Your task to perform on an android device: check android version Image 0: 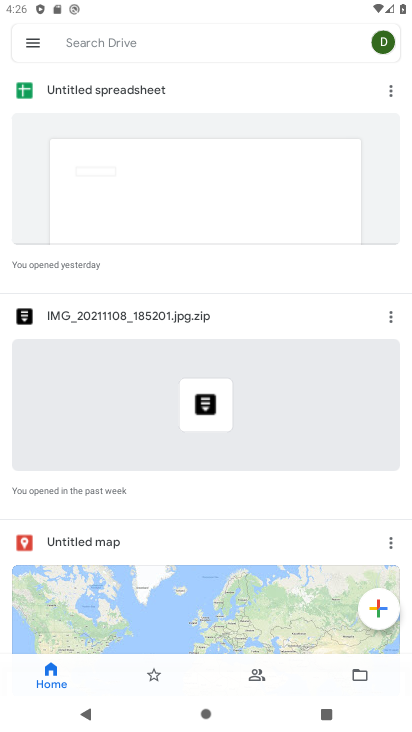
Step 0: press home button
Your task to perform on an android device: check android version Image 1: 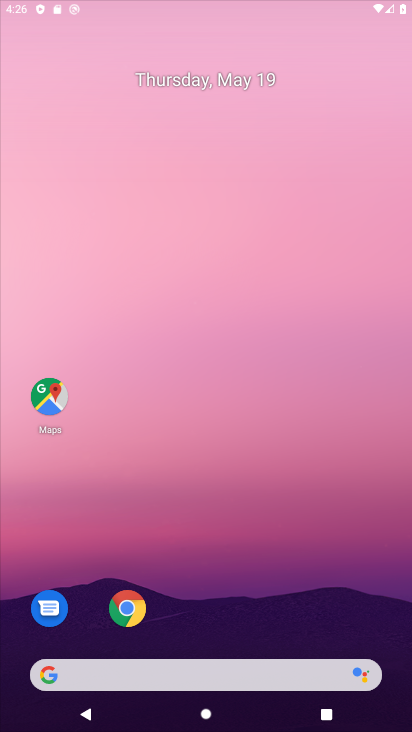
Step 1: drag from (265, 607) to (272, 86)
Your task to perform on an android device: check android version Image 2: 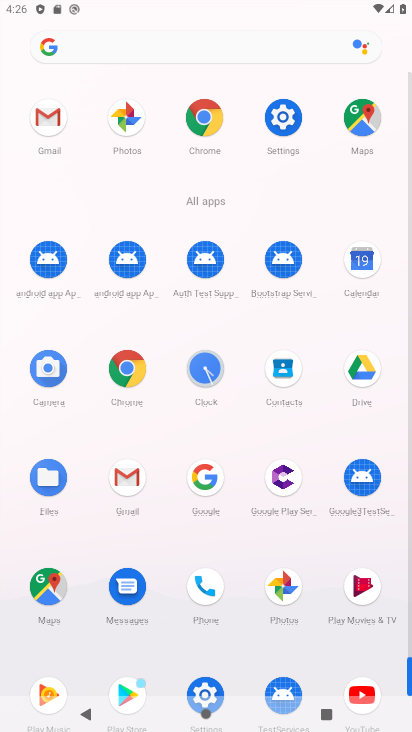
Step 2: click (297, 111)
Your task to perform on an android device: check android version Image 3: 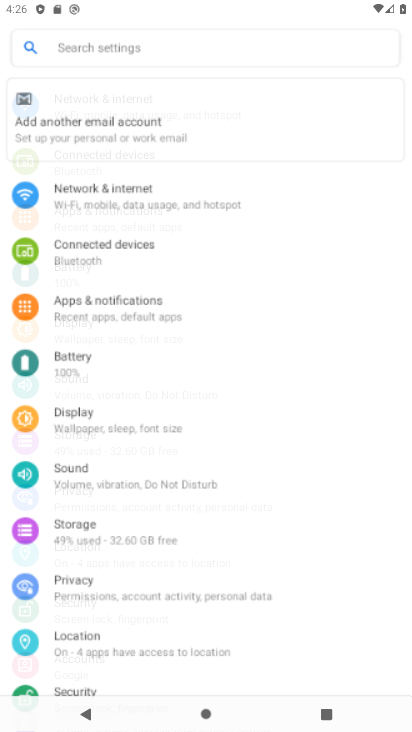
Step 3: drag from (287, 535) to (307, 118)
Your task to perform on an android device: check android version Image 4: 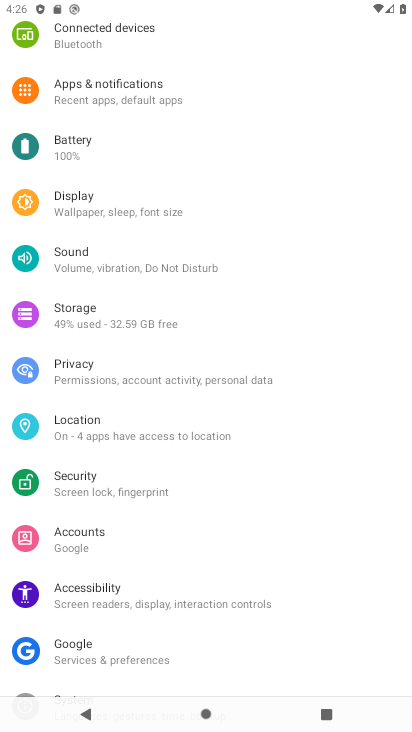
Step 4: drag from (230, 575) to (248, 128)
Your task to perform on an android device: check android version Image 5: 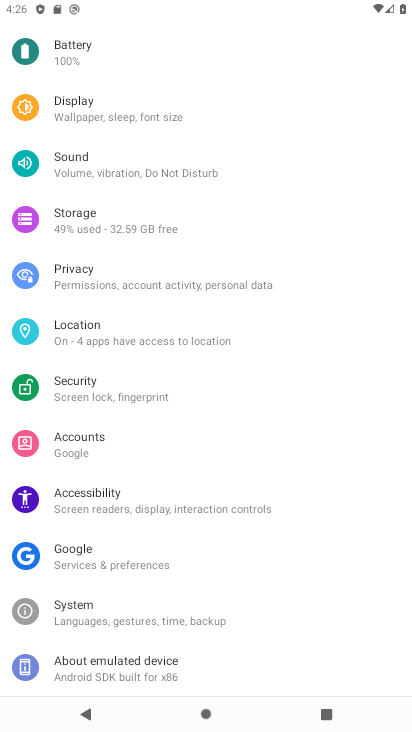
Step 5: click (143, 671)
Your task to perform on an android device: check android version Image 6: 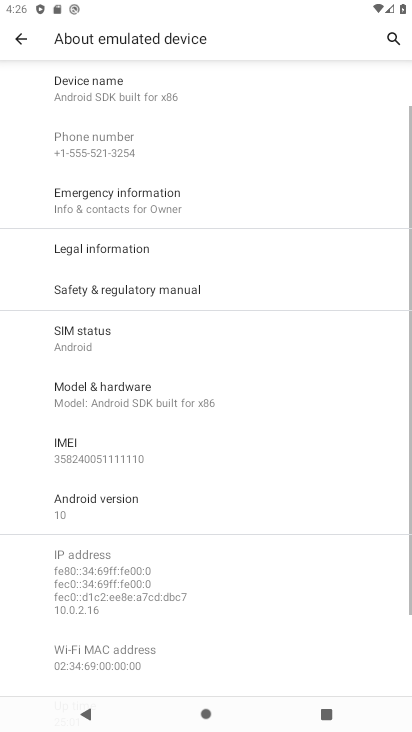
Step 6: drag from (221, 633) to (257, 348)
Your task to perform on an android device: check android version Image 7: 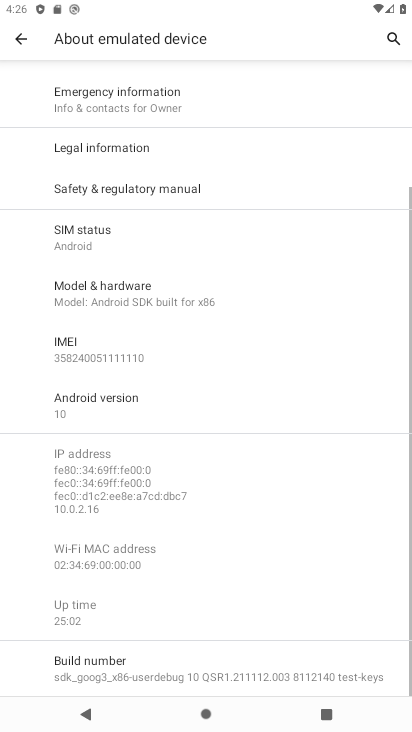
Step 7: click (94, 412)
Your task to perform on an android device: check android version Image 8: 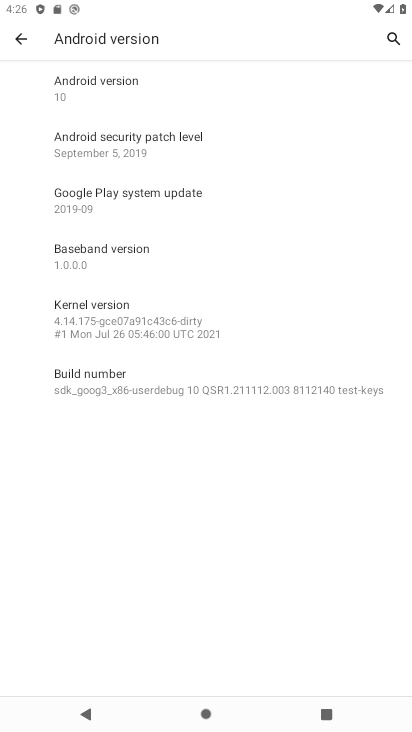
Step 8: task complete